Your task to perform on an android device: What's the weather today? Image 0: 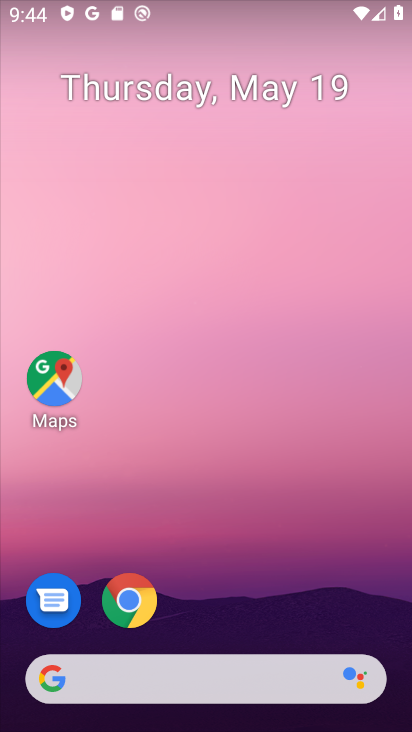
Step 0: drag from (251, 568) to (208, 43)
Your task to perform on an android device: What's the weather today? Image 1: 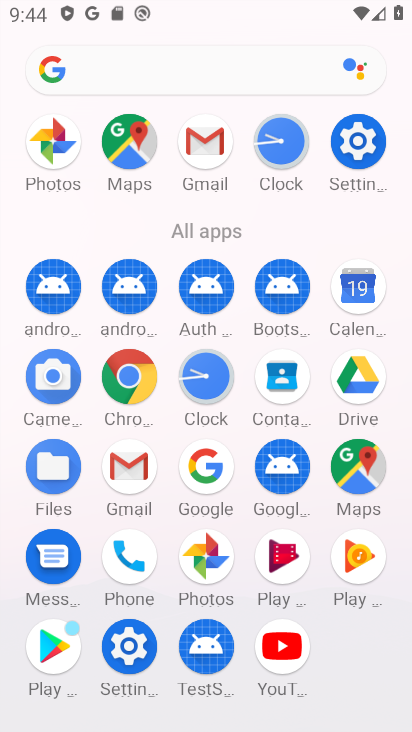
Step 1: click (130, 372)
Your task to perform on an android device: What's the weather today? Image 2: 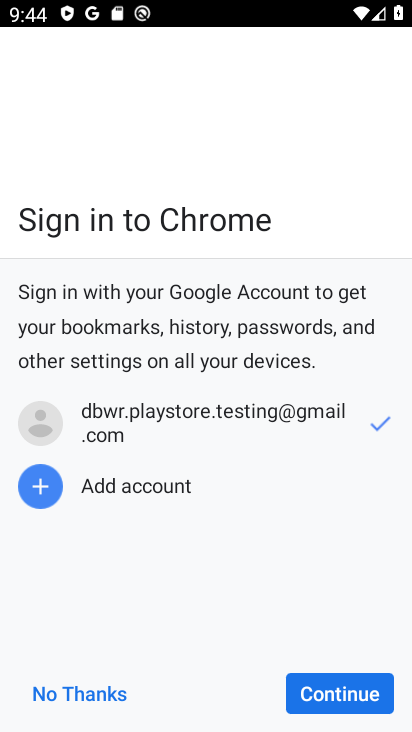
Step 2: click (351, 679)
Your task to perform on an android device: What's the weather today? Image 3: 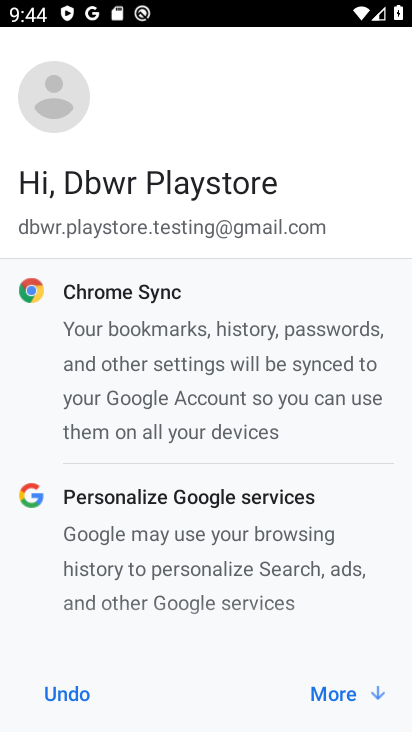
Step 3: click (350, 693)
Your task to perform on an android device: What's the weather today? Image 4: 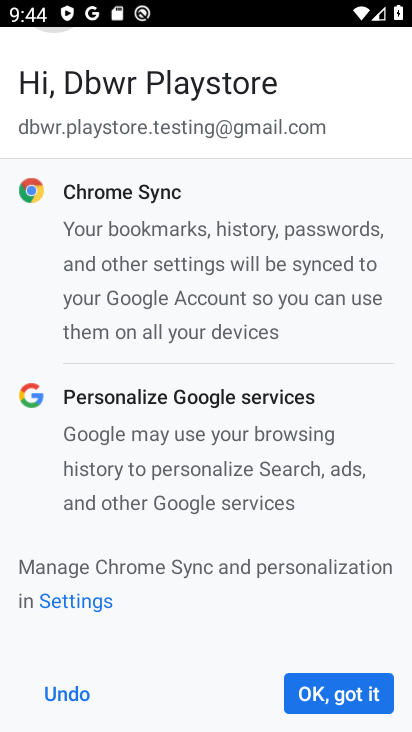
Step 4: click (350, 693)
Your task to perform on an android device: What's the weather today? Image 5: 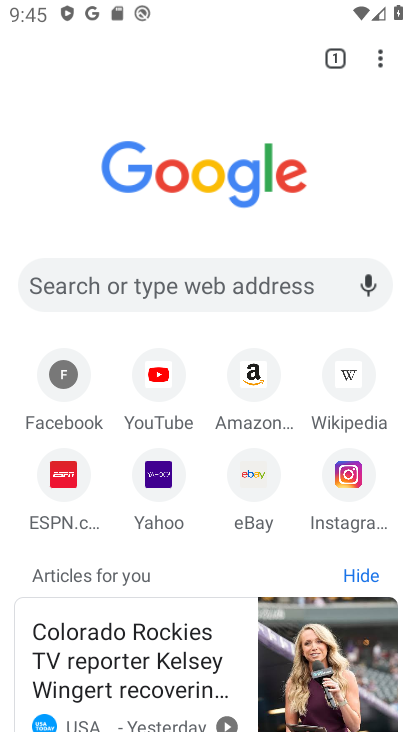
Step 5: click (155, 276)
Your task to perform on an android device: What's the weather today? Image 6: 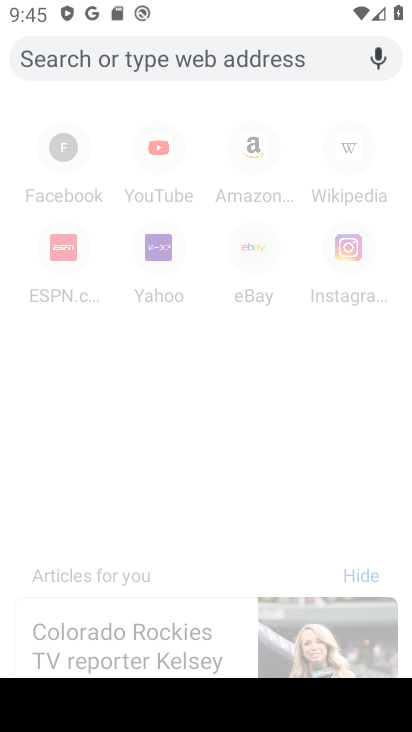
Step 6: type "What's the weather today?"
Your task to perform on an android device: What's the weather today? Image 7: 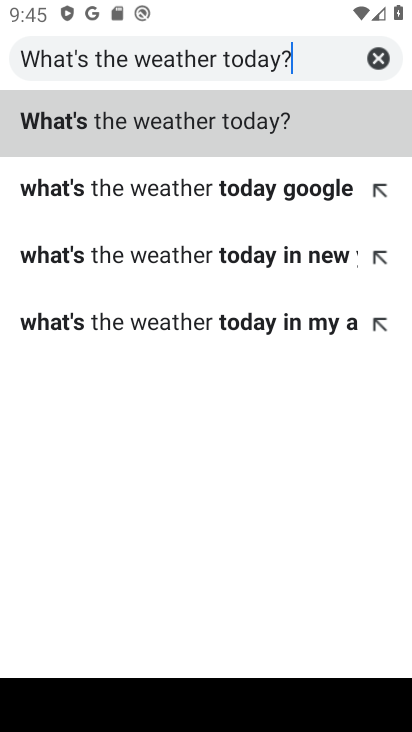
Step 7: click (325, 123)
Your task to perform on an android device: What's the weather today? Image 8: 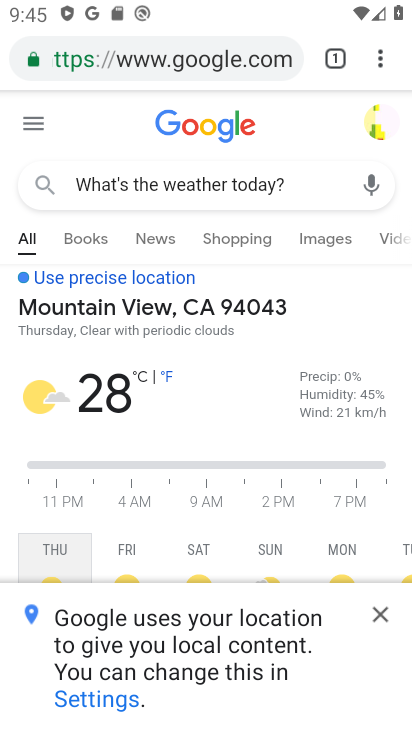
Step 8: click (369, 610)
Your task to perform on an android device: What's the weather today? Image 9: 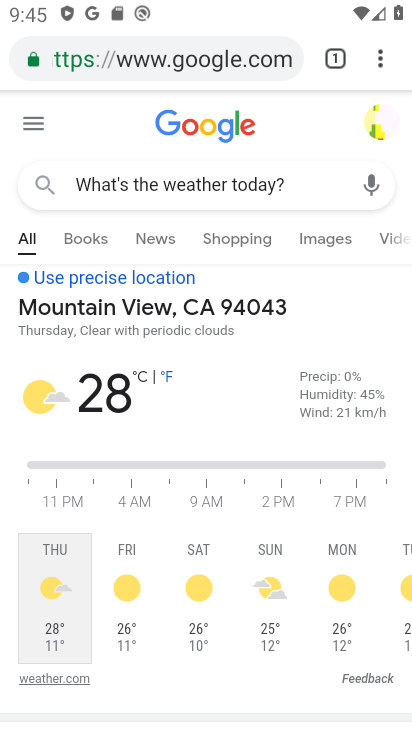
Step 9: task complete